Your task to perform on an android device: Open internet settings Image 0: 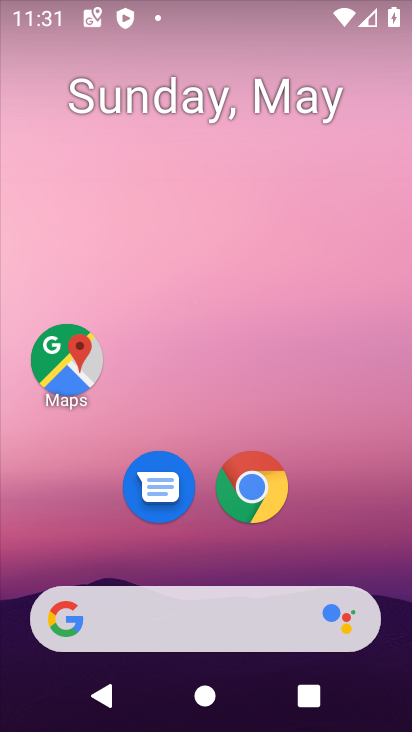
Step 0: drag from (349, 522) to (349, 38)
Your task to perform on an android device: Open internet settings Image 1: 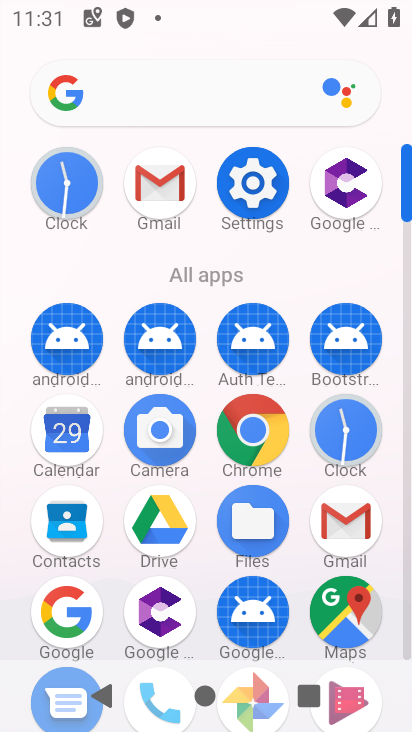
Step 1: click (275, 203)
Your task to perform on an android device: Open internet settings Image 2: 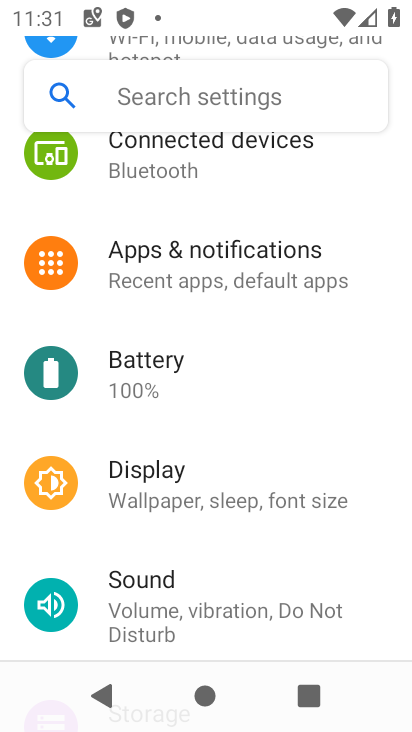
Step 2: drag from (371, 218) to (371, 364)
Your task to perform on an android device: Open internet settings Image 3: 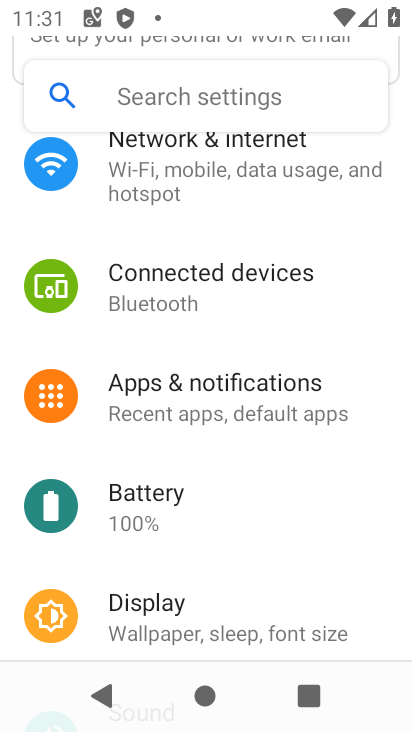
Step 3: drag from (368, 220) to (364, 389)
Your task to perform on an android device: Open internet settings Image 4: 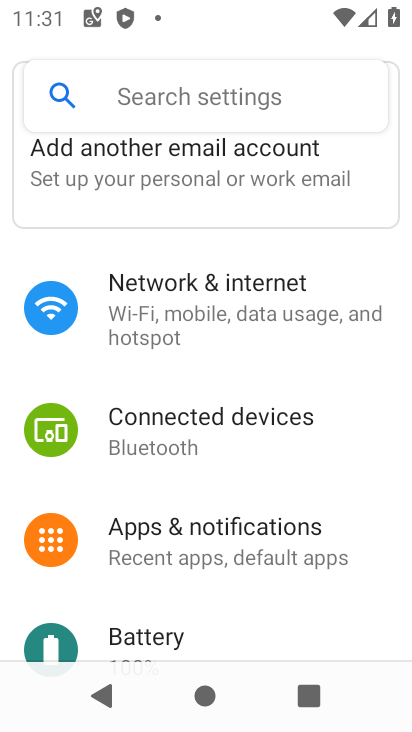
Step 4: drag from (378, 146) to (352, 492)
Your task to perform on an android device: Open internet settings Image 5: 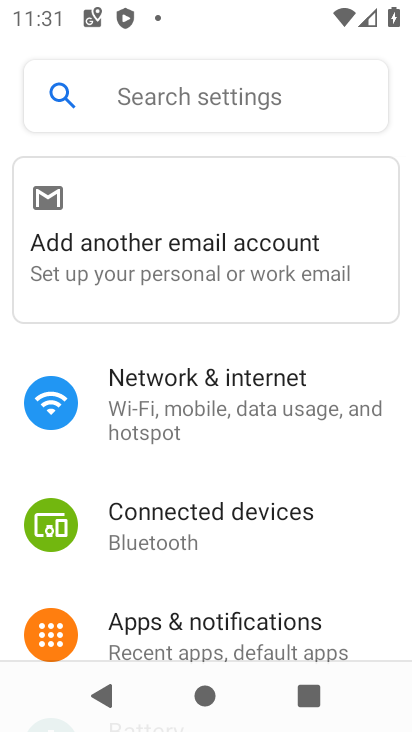
Step 5: click (300, 389)
Your task to perform on an android device: Open internet settings Image 6: 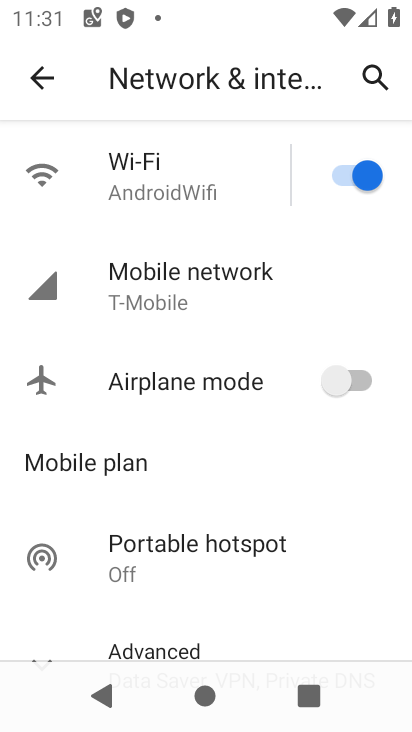
Step 6: task complete